Your task to perform on an android device: find snoozed emails in the gmail app Image 0: 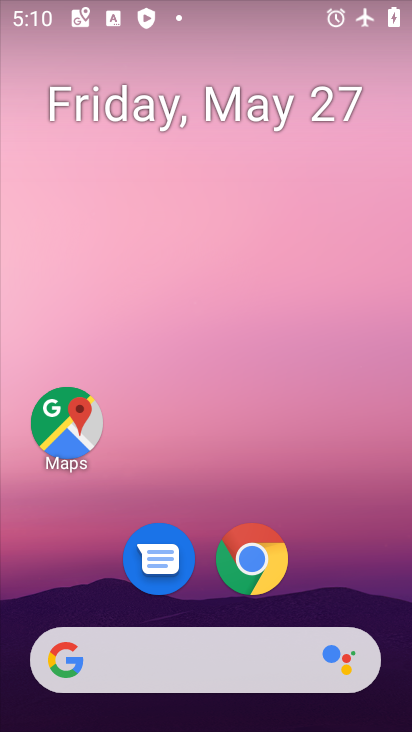
Step 0: drag from (153, 644) to (278, 6)
Your task to perform on an android device: find snoozed emails in the gmail app Image 1: 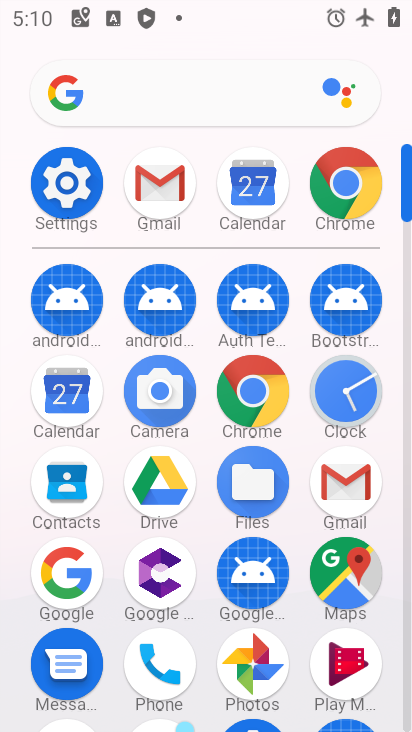
Step 1: click (344, 501)
Your task to perform on an android device: find snoozed emails in the gmail app Image 2: 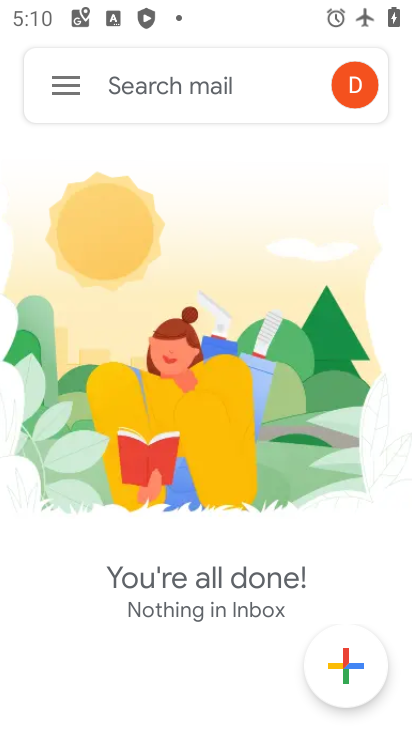
Step 2: click (71, 86)
Your task to perform on an android device: find snoozed emails in the gmail app Image 3: 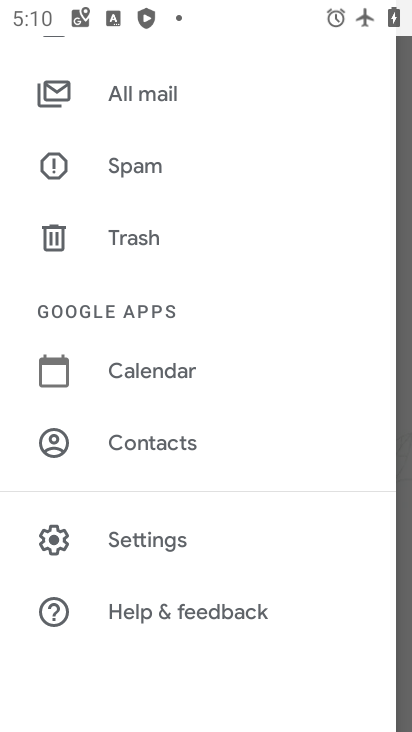
Step 3: press home button
Your task to perform on an android device: find snoozed emails in the gmail app Image 4: 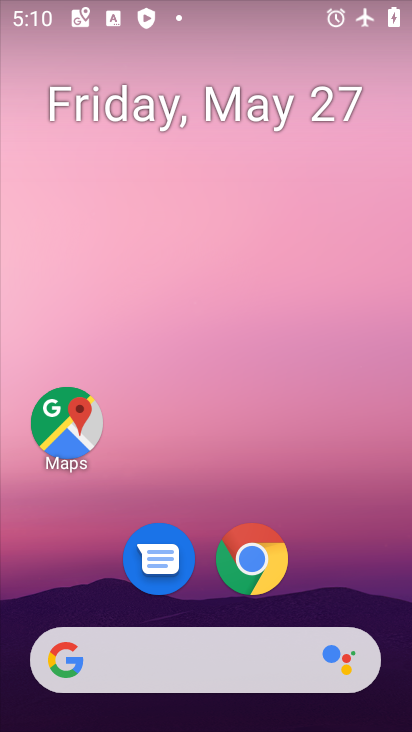
Step 4: drag from (208, 610) to (247, 7)
Your task to perform on an android device: find snoozed emails in the gmail app Image 5: 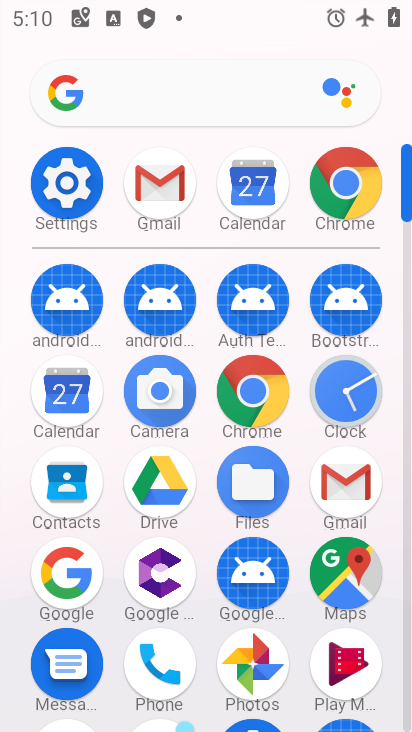
Step 5: click (72, 193)
Your task to perform on an android device: find snoozed emails in the gmail app Image 6: 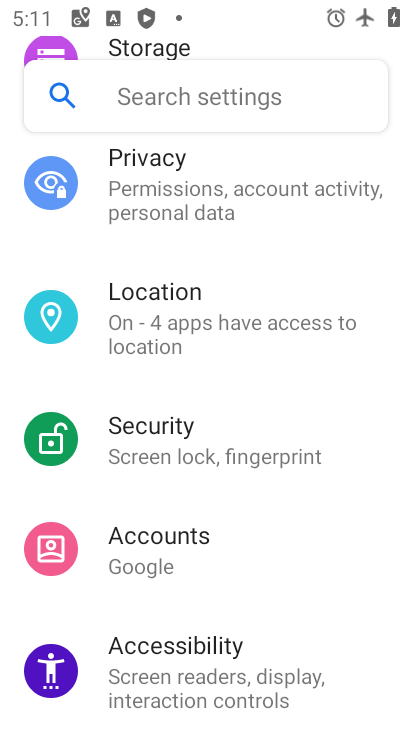
Step 6: press home button
Your task to perform on an android device: find snoozed emails in the gmail app Image 7: 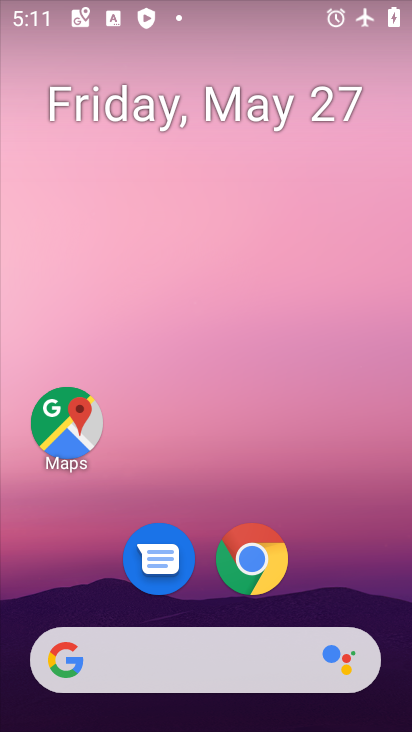
Step 7: drag from (323, 657) to (388, 11)
Your task to perform on an android device: find snoozed emails in the gmail app Image 8: 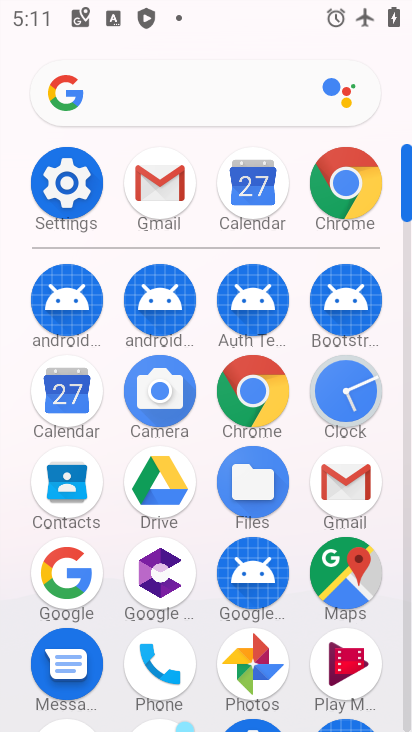
Step 8: click (333, 505)
Your task to perform on an android device: find snoozed emails in the gmail app Image 9: 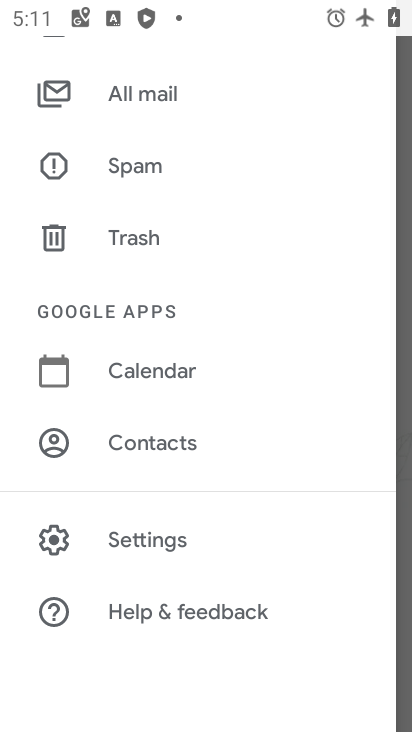
Step 9: drag from (172, 129) to (228, 725)
Your task to perform on an android device: find snoozed emails in the gmail app Image 10: 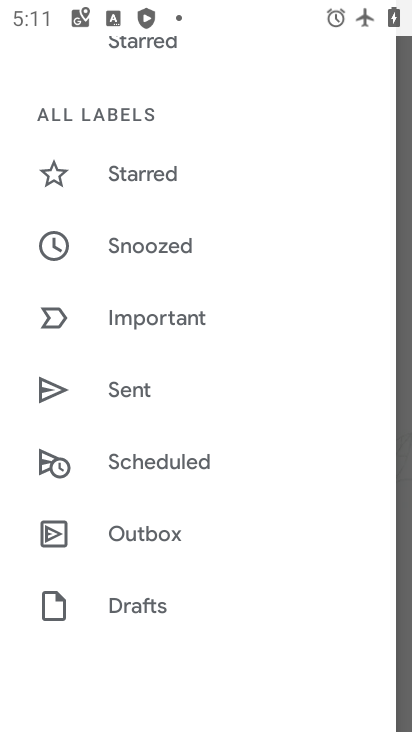
Step 10: click (191, 256)
Your task to perform on an android device: find snoozed emails in the gmail app Image 11: 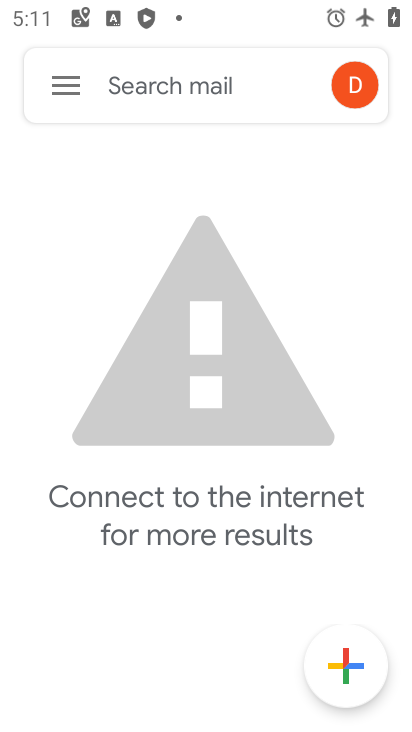
Step 11: task complete